Your task to perform on an android device: delete browsing data in the chrome app Image 0: 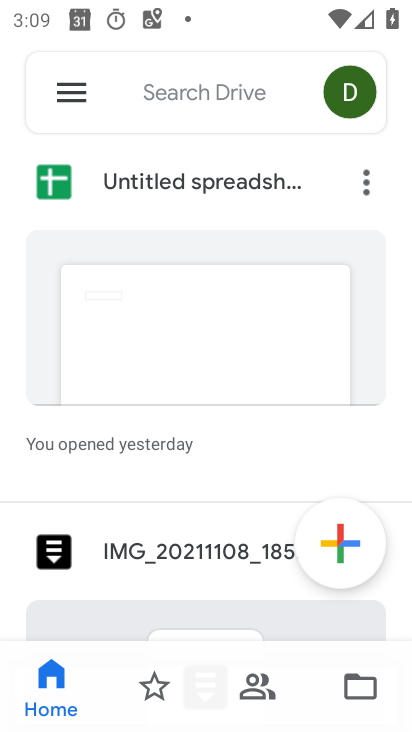
Step 0: press home button
Your task to perform on an android device: delete browsing data in the chrome app Image 1: 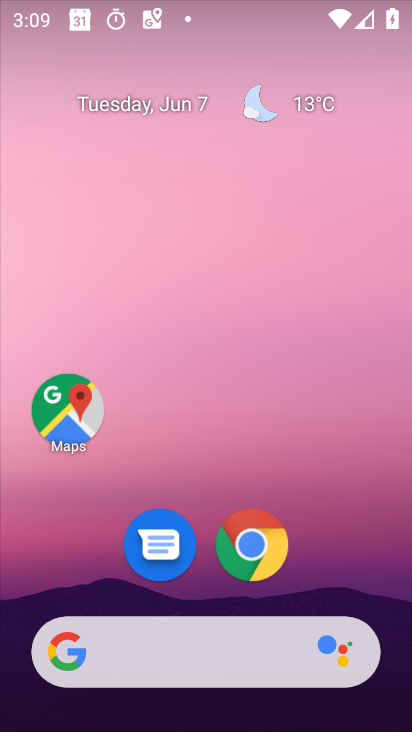
Step 1: click (243, 545)
Your task to perform on an android device: delete browsing data in the chrome app Image 2: 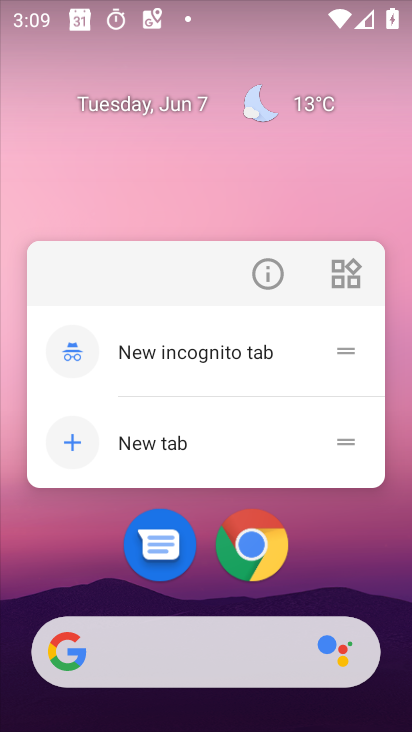
Step 2: click (241, 566)
Your task to perform on an android device: delete browsing data in the chrome app Image 3: 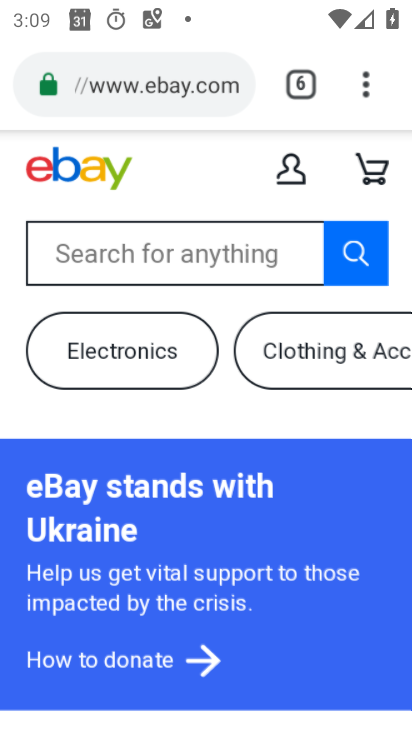
Step 3: click (371, 78)
Your task to perform on an android device: delete browsing data in the chrome app Image 4: 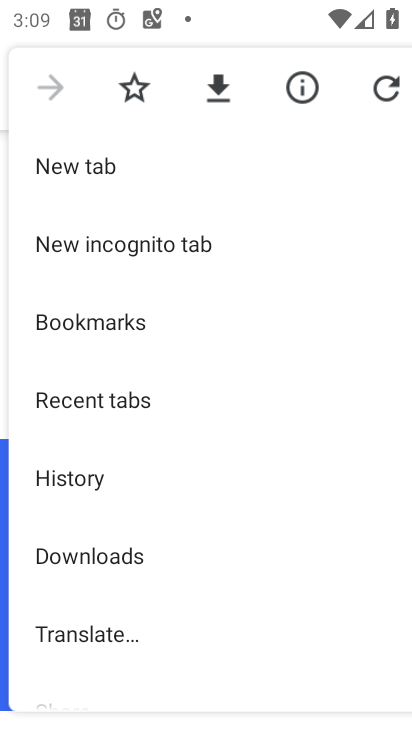
Step 4: click (171, 486)
Your task to perform on an android device: delete browsing data in the chrome app Image 5: 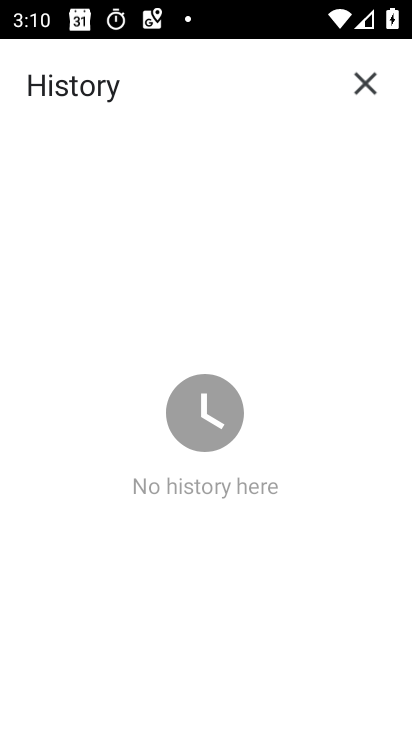
Step 5: task complete